Your task to perform on an android device: snooze an email in the gmail app Image 0: 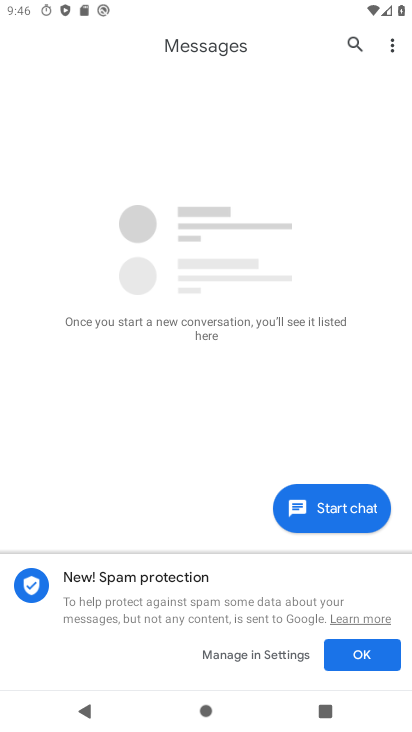
Step 0: press home button
Your task to perform on an android device: snooze an email in the gmail app Image 1: 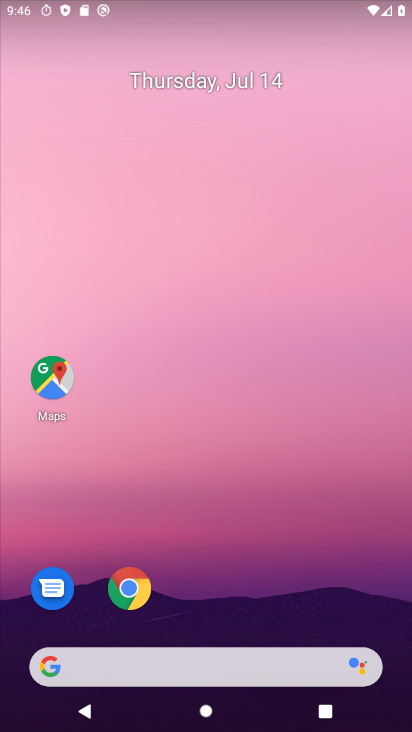
Step 1: drag from (178, 641) to (120, 212)
Your task to perform on an android device: snooze an email in the gmail app Image 2: 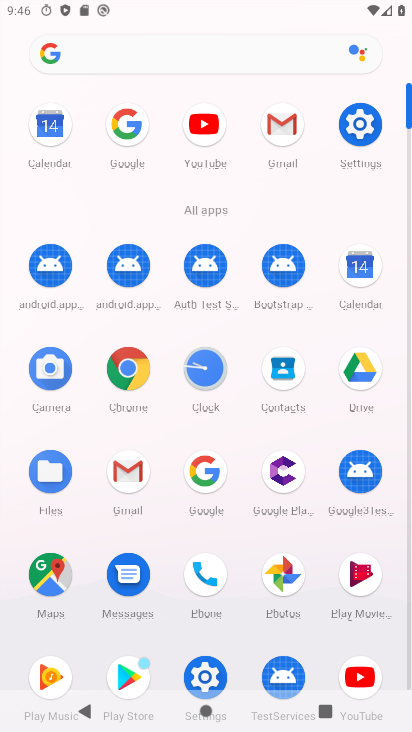
Step 2: click (268, 122)
Your task to perform on an android device: snooze an email in the gmail app Image 3: 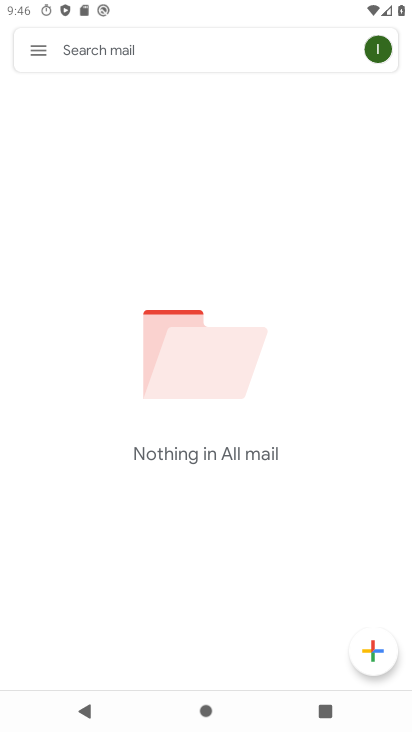
Step 3: click (37, 47)
Your task to perform on an android device: snooze an email in the gmail app Image 4: 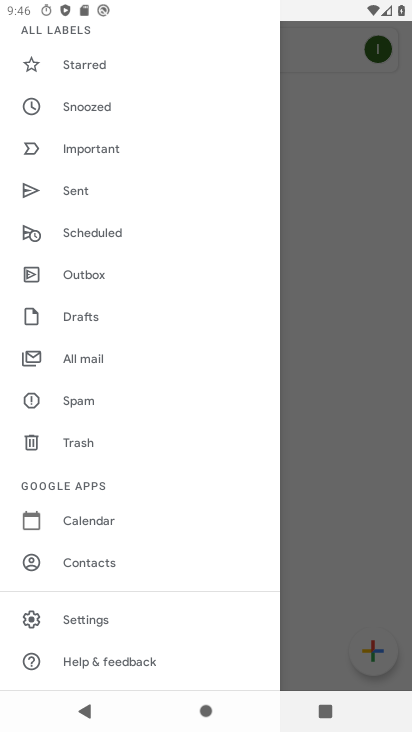
Step 4: click (72, 102)
Your task to perform on an android device: snooze an email in the gmail app Image 5: 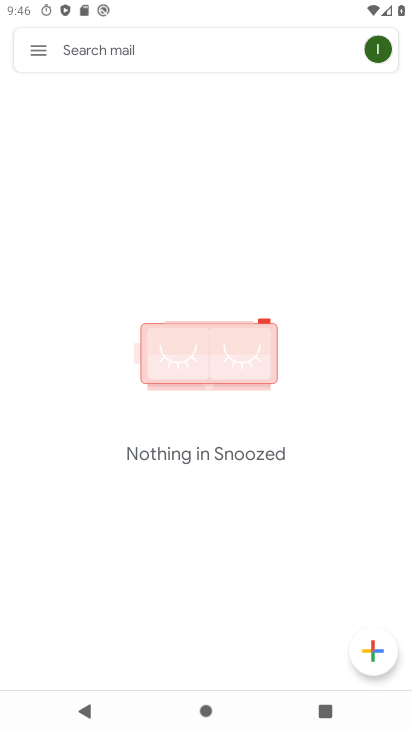
Step 5: task complete